Your task to perform on an android device: turn on showing notifications on the lock screen Image 0: 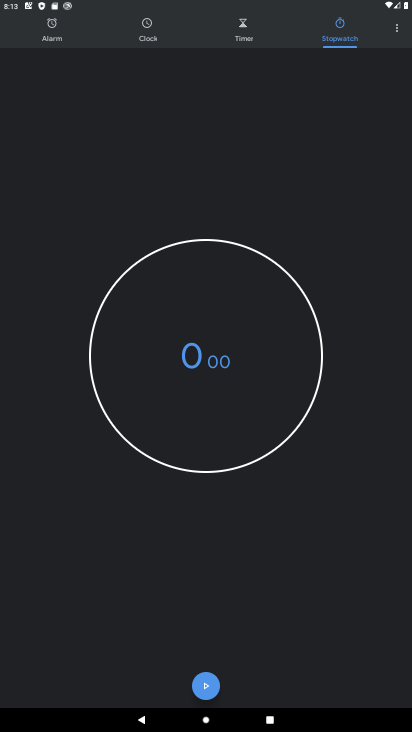
Step 0: press home button
Your task to perform on an android device: turn on showing notifications on the lock screen Image 1: 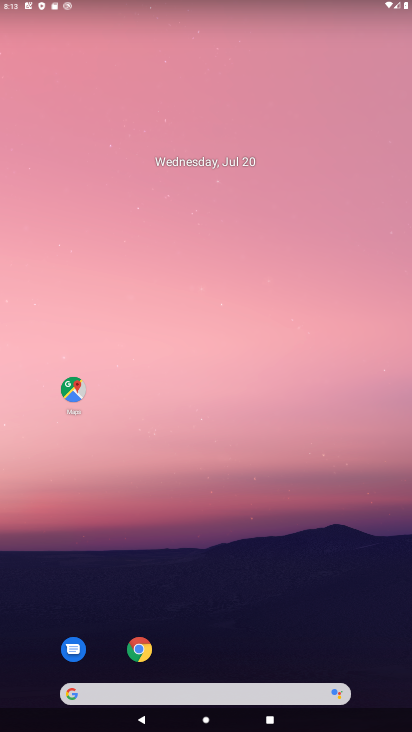
Step 1: drag from (199, 694) to (225, 123)
Your task to perform on an android device: turn on showing notifications on the lock screen Image 2: 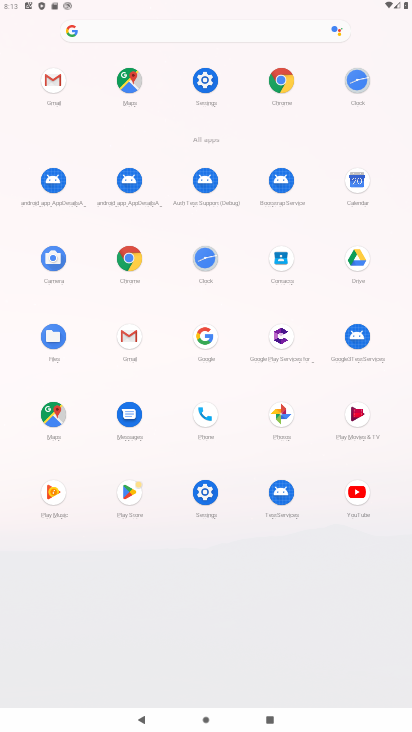
Step 2: click (204, 80)
Your task to perform on an android device: turn on showing notifications on the lock screen Image 3: 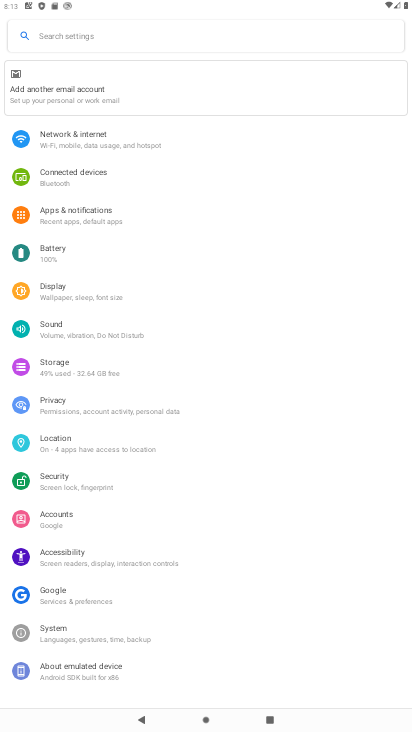
Step 3: click (93, 214)
Your task to perform on an android device: turn on showing notifications on the lock screen Image 4: 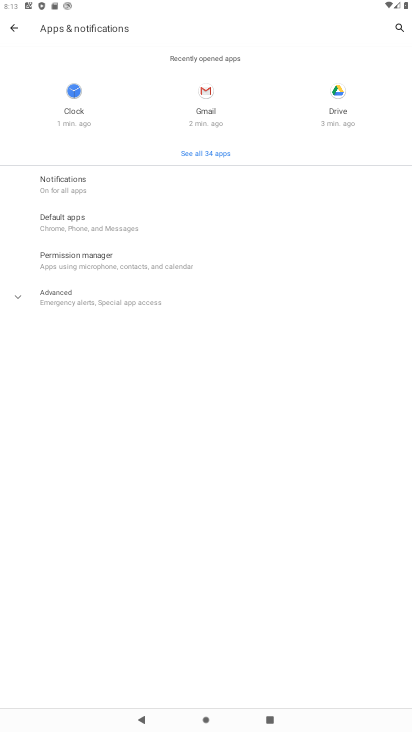
Step 4: click (60, 182)
Your task to perform on an android device: turn on showing notifications on the lock screen Image 5: 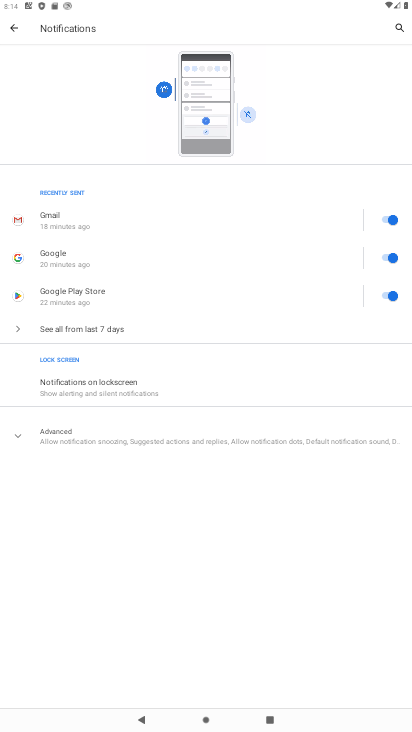
Step 5: click (83, 388)
Your task to perform on an android device: turn on showing notifications on the lock screen Image 6: 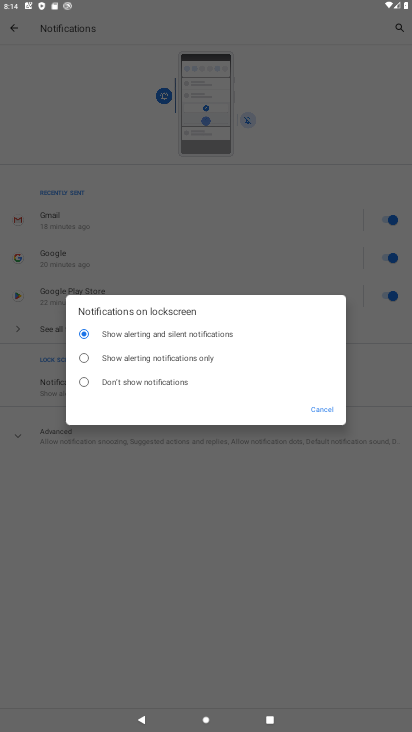
Step 6: click (84, 335)
Your task to perform on an android device: turn on showing notifications on the lock screen Image 7: 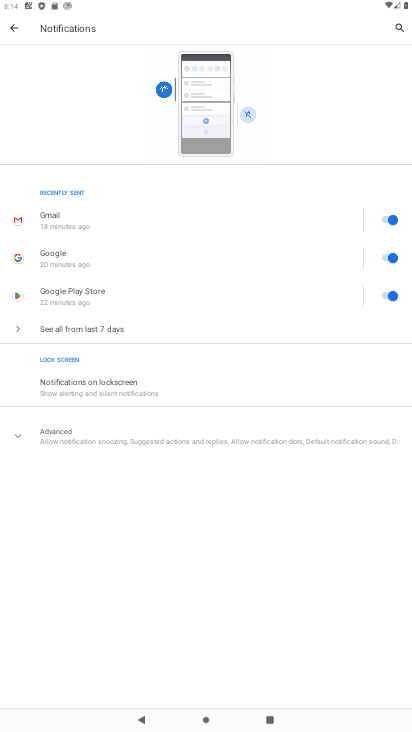
Step 7: task complete